Your task to perform on an android device: Turn on notifications for the Google Maps app Image 0: 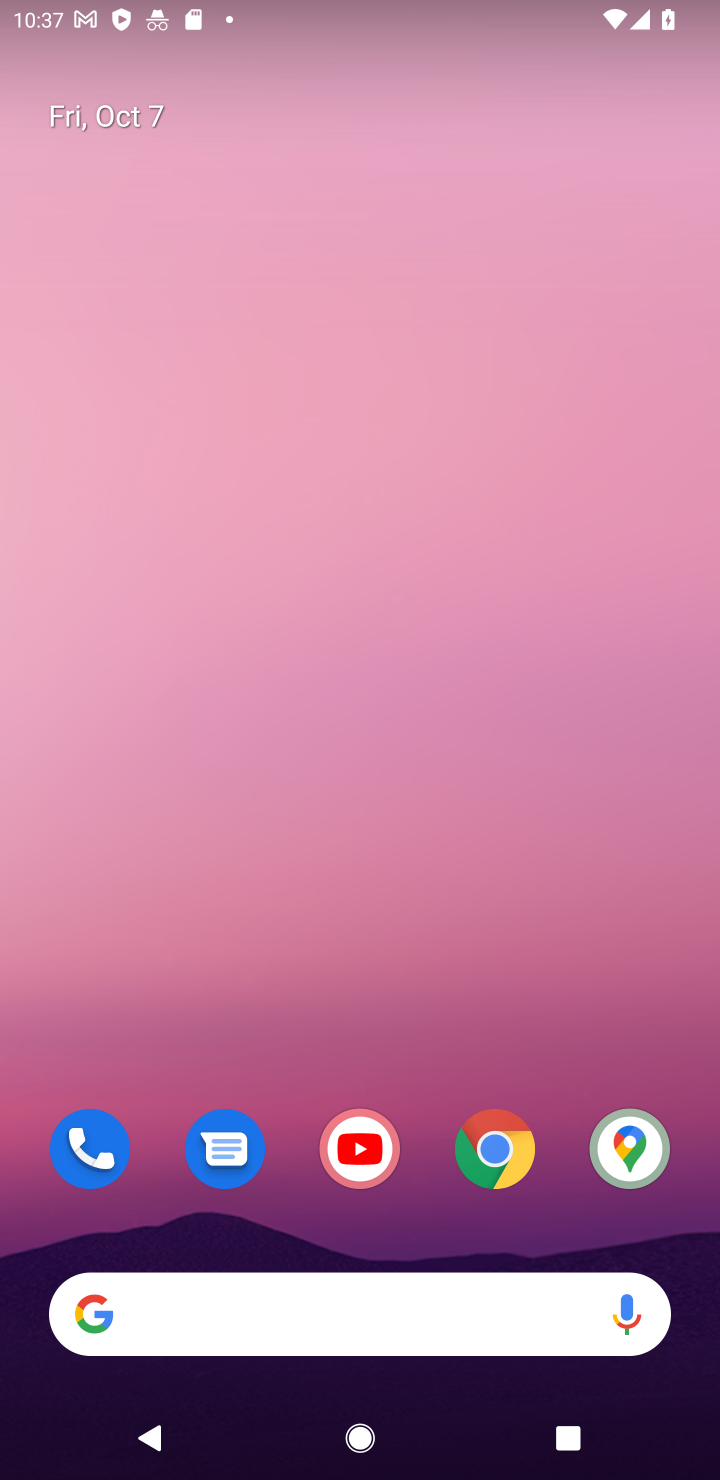
Step 0: click (639, 1158)
Your task to perform on an android device: Turn on notifications for the Google Maps app Image 1: 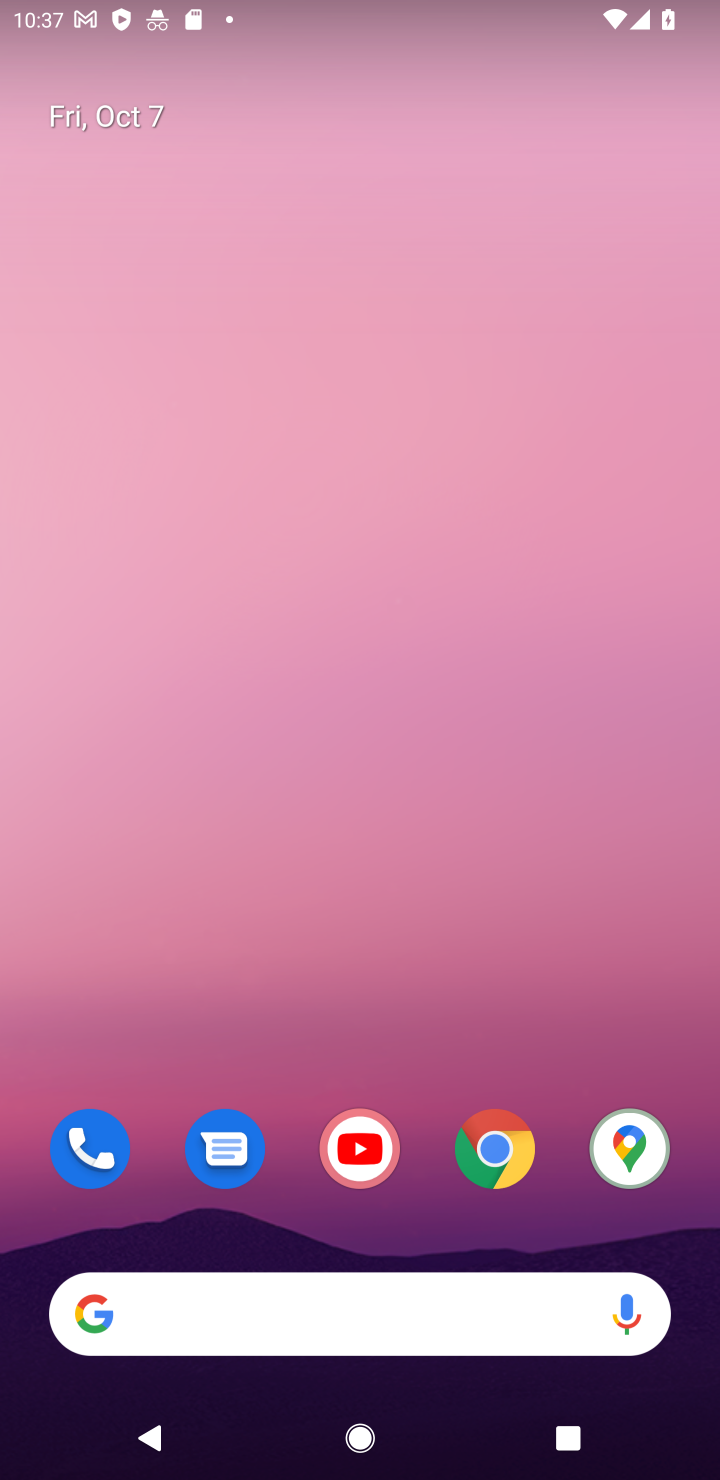
Step 1: task complete